Your task to perform on an android device: Find coffee shops on Maps Image 0: 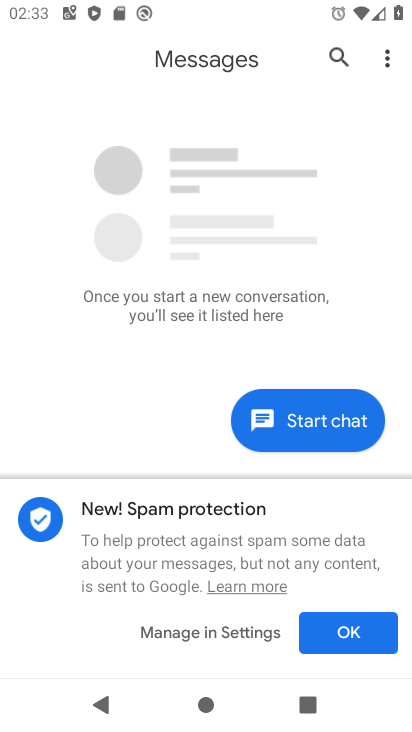
Step 0: press home button
Your task to perform on an android device: Find coffee shops on Maps Image 1: 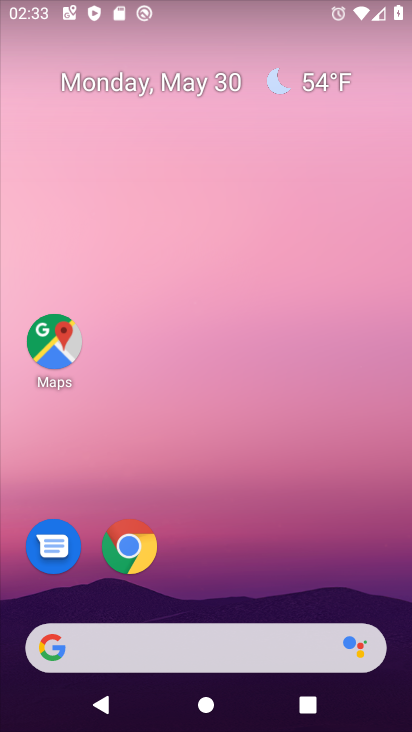
Step 1: click (47, 343)
Your task to perform on an android device: Find coffee shops on Maps Image 2: 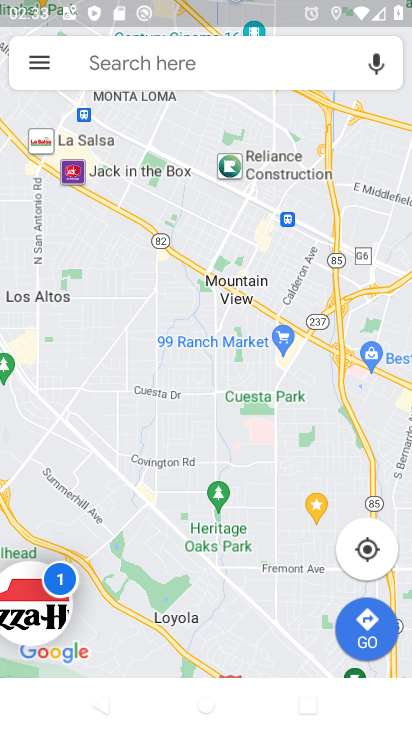
Step 2: click (150, 62)
Your task to perform on an android device: Find coffee shops on Maps Image 3: 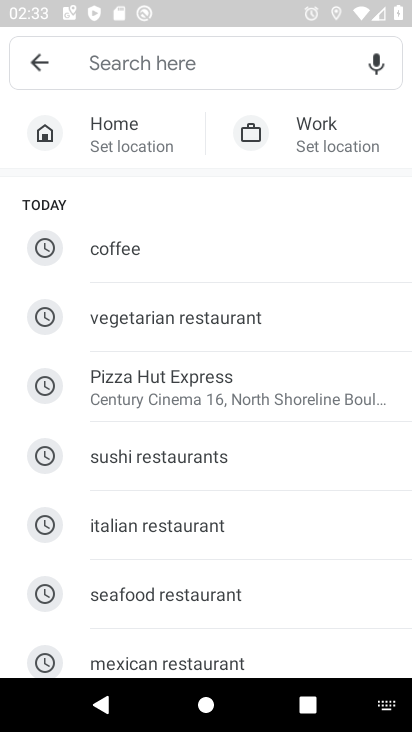
Step 3: click (144, 245)
Your task to perform on an android device: Find coffee shops on Maps Image 4: 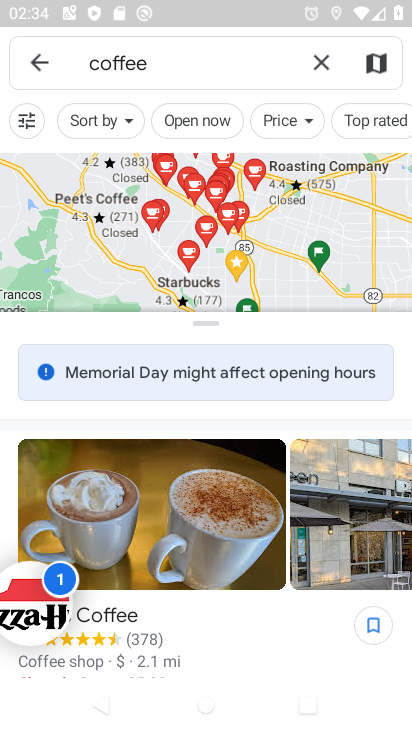
Step 4: task complete